Your task to perform on an android device: Go to Amazon Image 0: 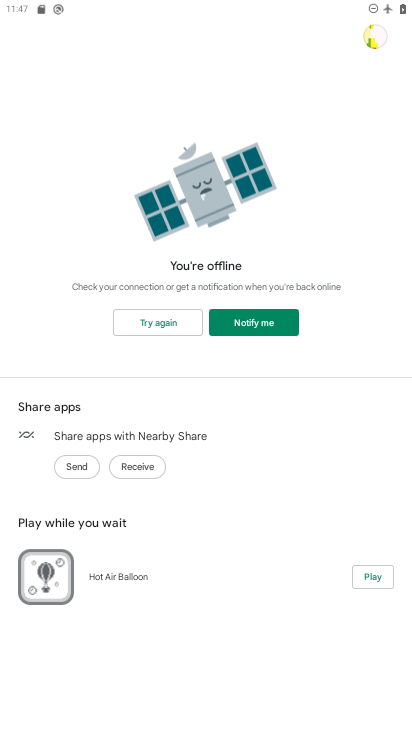
Step 0: press home button
Your task to perform on an android device: Go to Amazon Image 1: 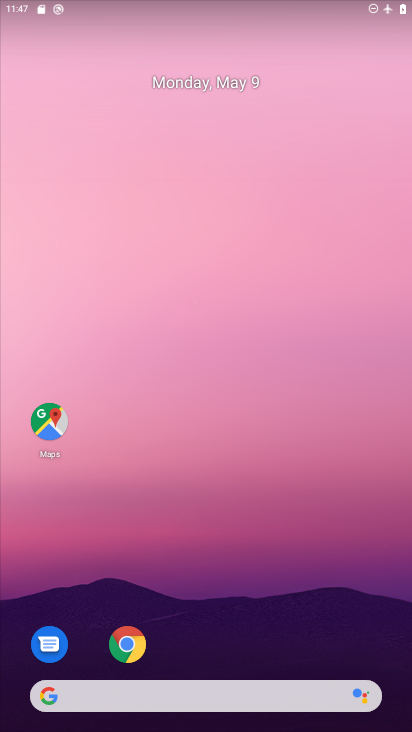
Step 1: click (130, 625)
Your task to perform on an android device: Go to Amazon Image 2: 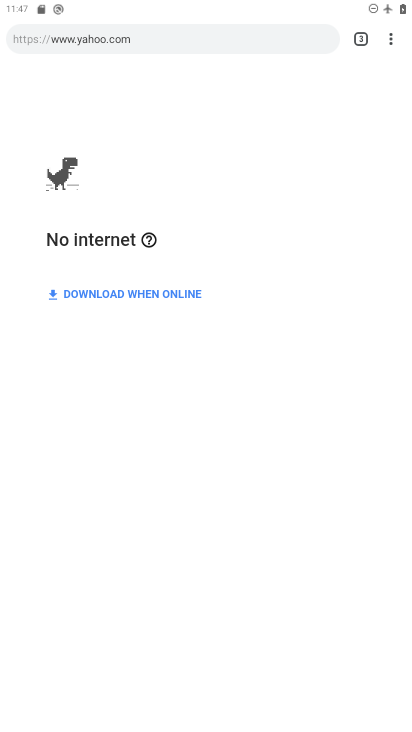
Step 2: click (393, 42)
Your task to perform on an android device: Go to Amazon Image 3: 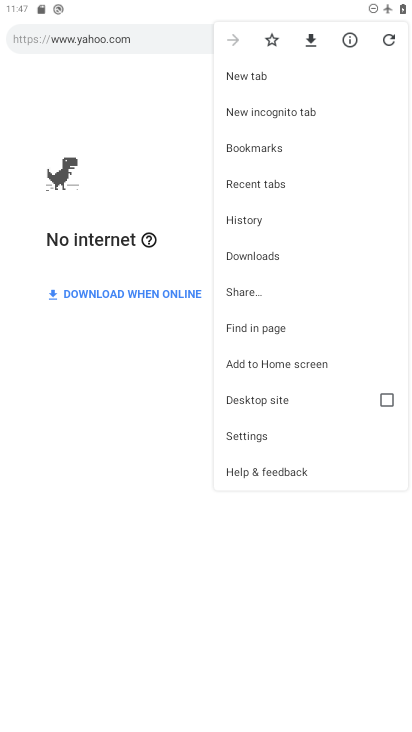
Step 3: click (170, 366)
Your task to perform on an android device: Go to Amazon Image 4: 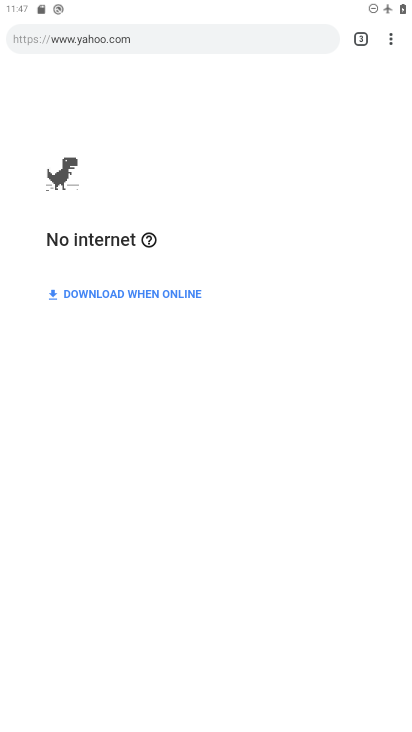
Step 4: click (358, 43)
Your task to perform on an android device: Go to Amazon Image 5: 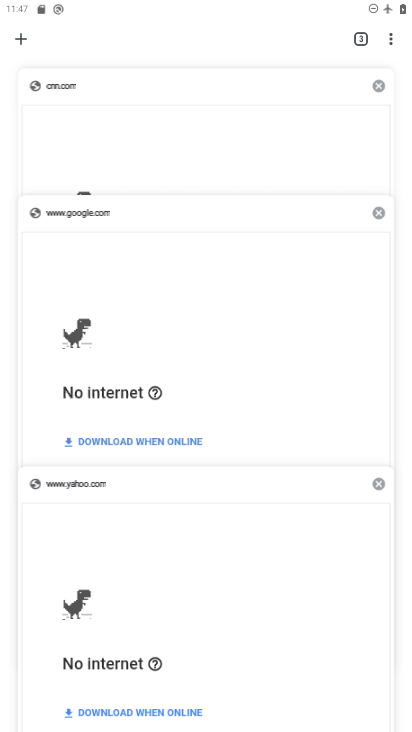
Step 5: click (25, 38)
Your task to perform on an android device: Go to Amazon Image 6: 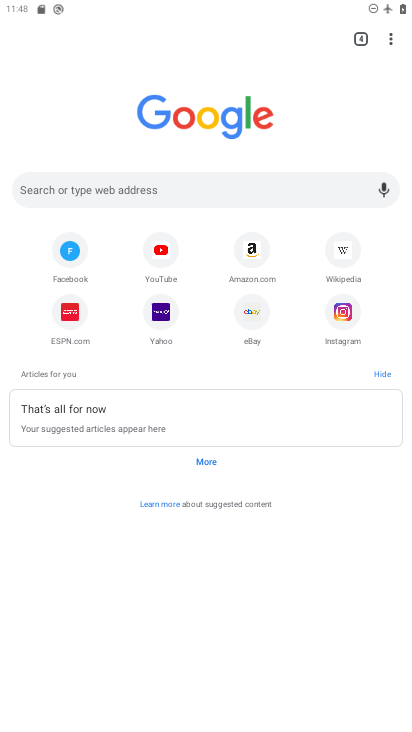
Step 6: click (236, 250)
Your task to perform on an android device: Go to Amazon Image 7: 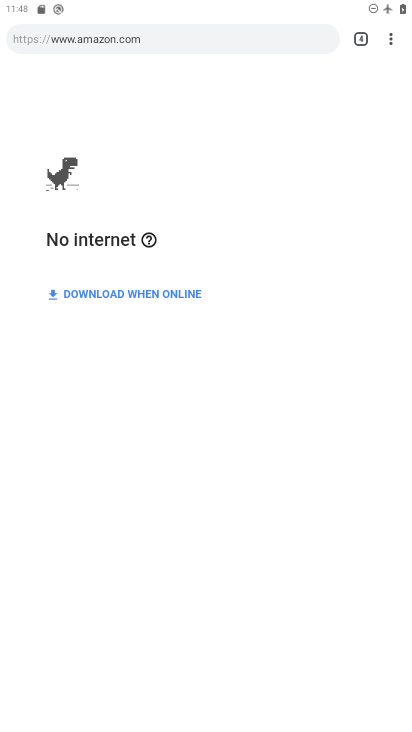
Step 7: task complete